Your task to perform on an android device: Turn off the flashlight Image 0: 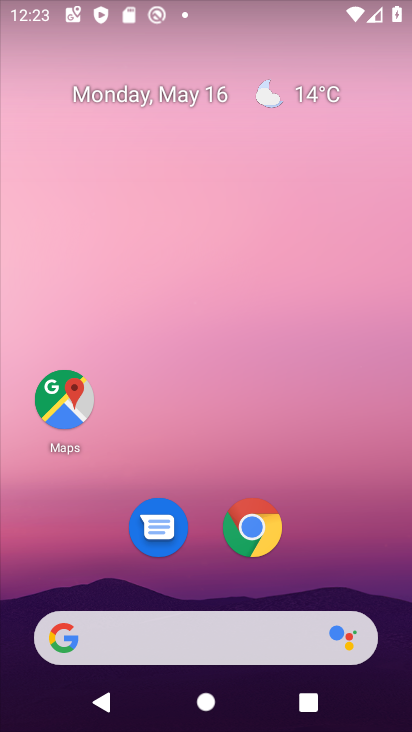
Step 0: drag from (209, 579) to (411, 2)
Your task to perform on an android device: Turn off the flashlight Image 1: 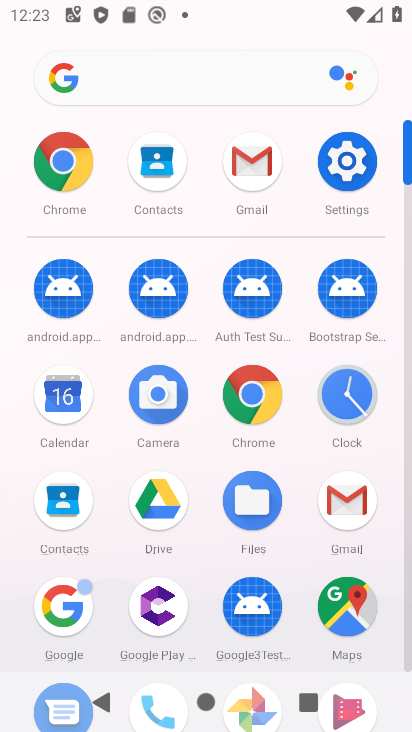
Step 1: click (342, 174)
Your task to perform on an android device: Turn off the flashlight Image 2: 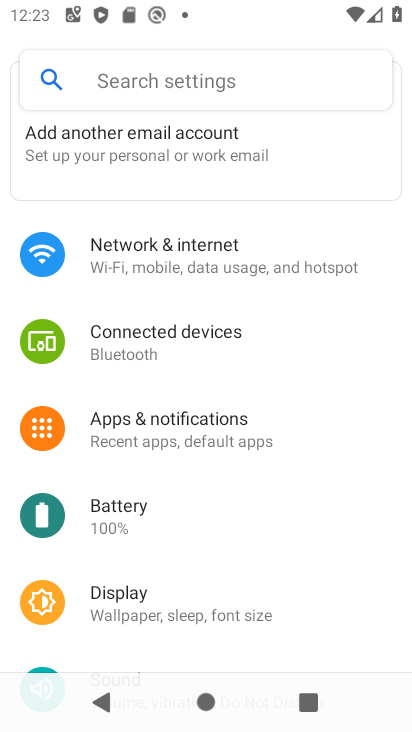
Step 2: click (205, 71)
Your task to perform on an android device: Turn off the flashlight Image 3: 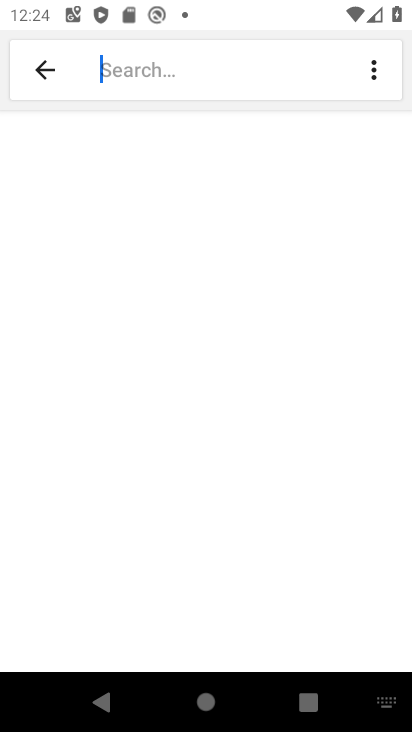
Step 3: type "flashlight"
Your task to perform on an android device: Turn off the flashlight Image 4: 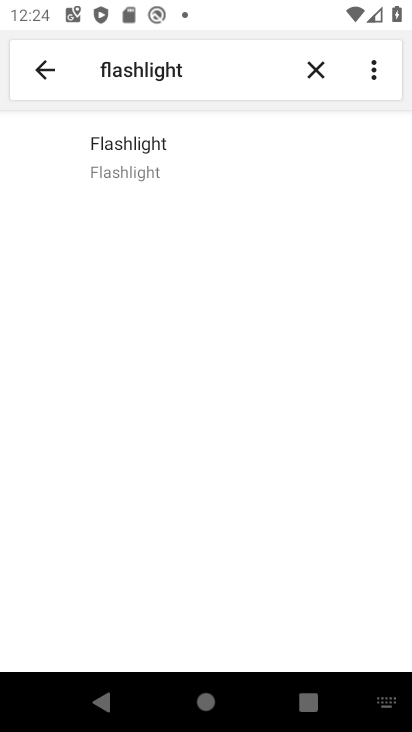
Step 4: click (151, 138)
Your task to perform on an android device: Turn off the flashlight Image 5: 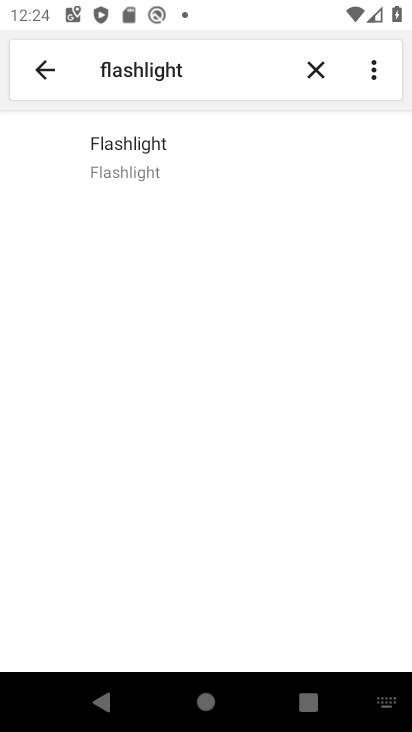
Step 5: click (158, 163)
Your task to perform on an android device: Turn off the flashlight Image 6: 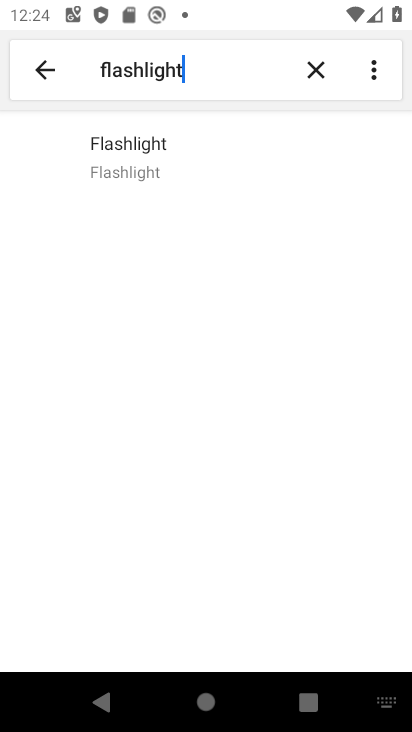
Step 6: task complete